Your task to perform on an android device: Find coffee shops on Maps Image 0: 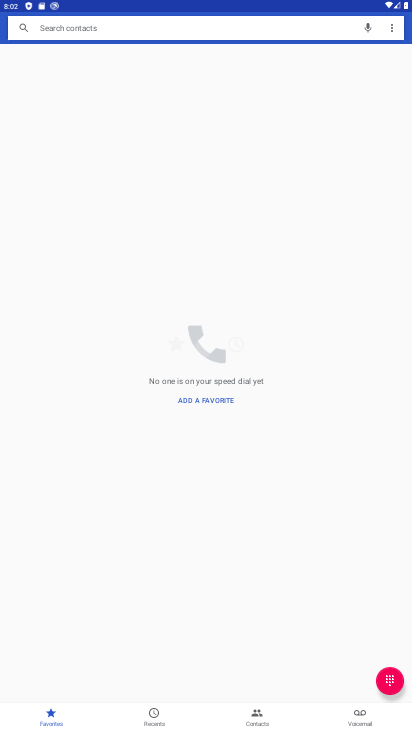
Step 0: press home button
Your task to perform on an android device: Find coffee shops on Maps Image 1: 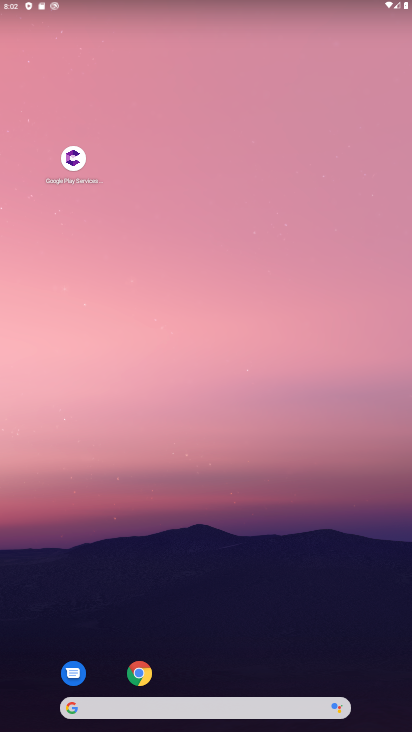
Step 1: drag from (223, 696) to (293, 8)
Your task to perform on an android device: Find coffee shops on Maps Image 2: 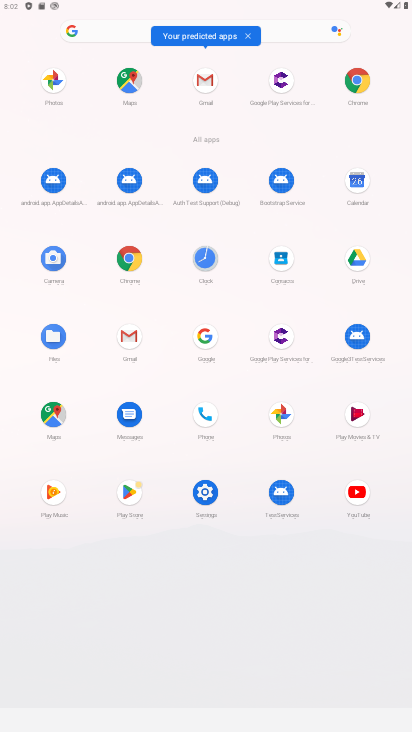
Step 2: click (57, 422)
Your task to perform on an android device: Find coffee shops on Maps Image 3: 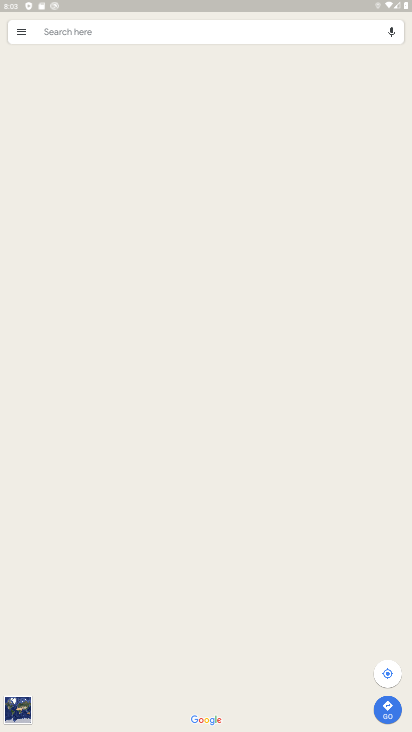
Step 3: click (196, 29)
Your task to perform on an android device: Find coffee shops on Maps Image 4: 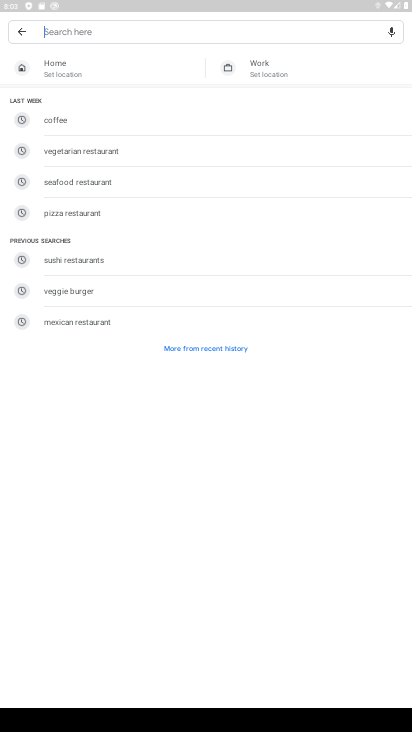
Step 4: click (52, 21)
Your task to perform on an android device: Find coffee shops on Maps Image 5: 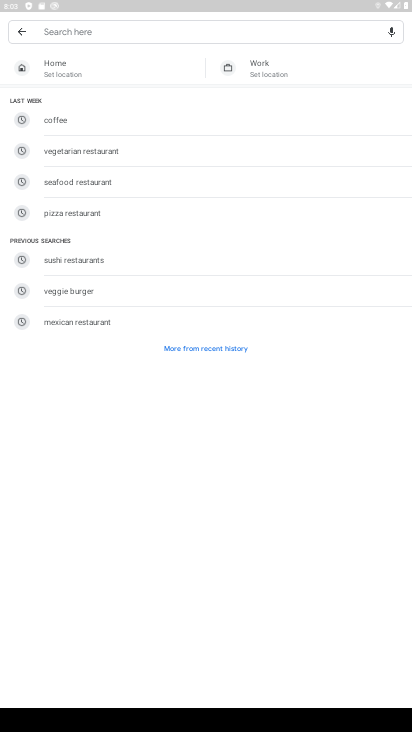
Step 5: type " coffee shops "
Your task to perform on an android device: Find coffee shops on Maps Image 6: 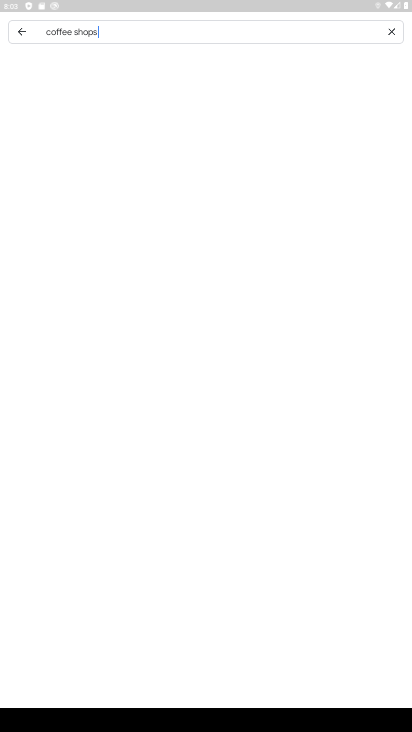
Step 6: type ""
Your task to perform on an android device: Find coffee shops on Maps Image 7: 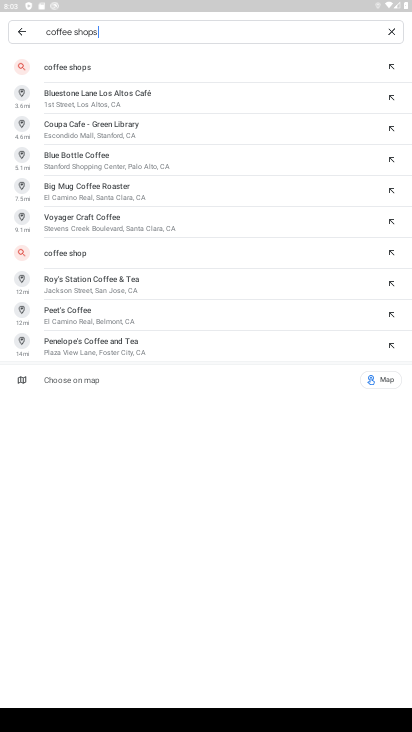
Step 7: click (69, 72)
Your task to perform on an android device: Find coffee shops on Maps Image 8: 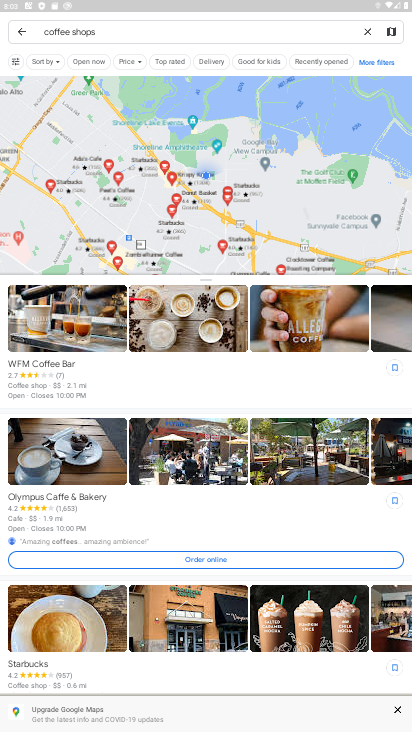
Step 8: task complete